Your task to perform on an android device: turn off notifications settings in the gmail app Image 0: 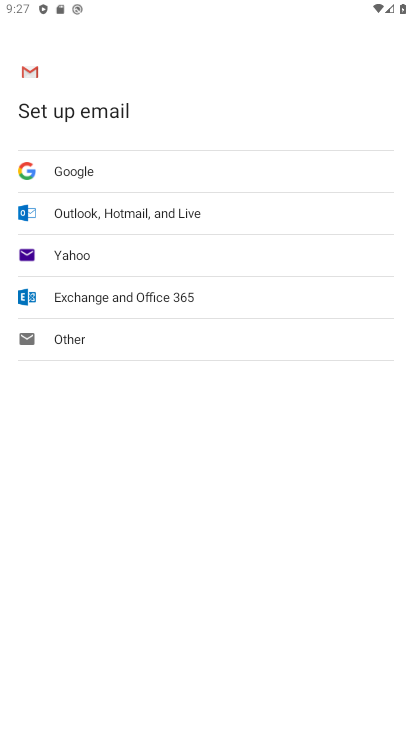
Step 0: press home button
Your task to perform on an android device: turn off notifications settings in the gmail app Image 1: 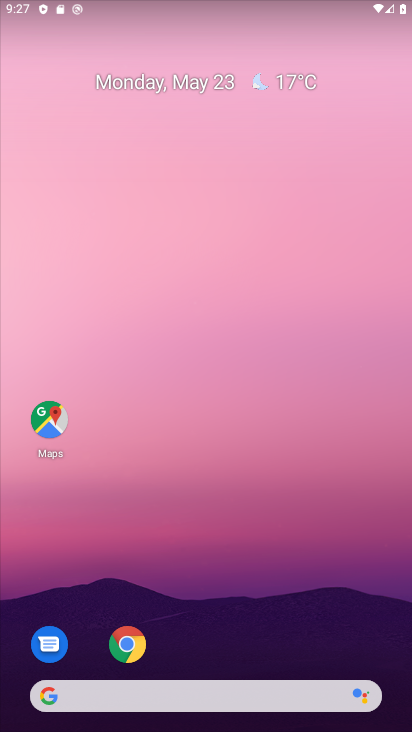
Step 1: drag from (235, 613) to (274, 301)
Your task to perform on an android device: turn off notifications settings in the gmail app Image 2: 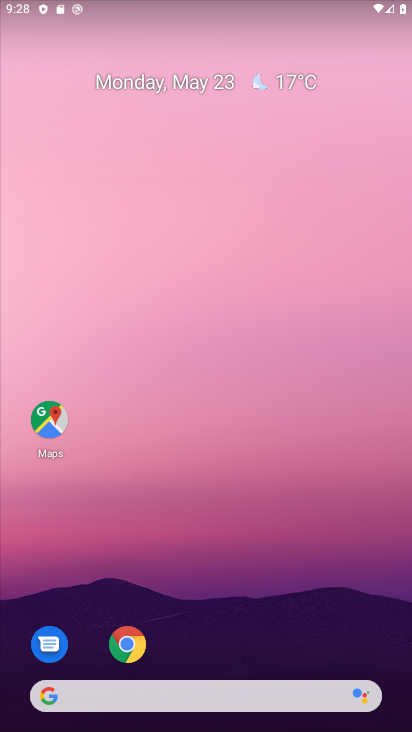
Step 2: drag from (225, 664) to (257, 265)
Your task to perform on an android device: turn off notifications settings in the gmail app Image 3: 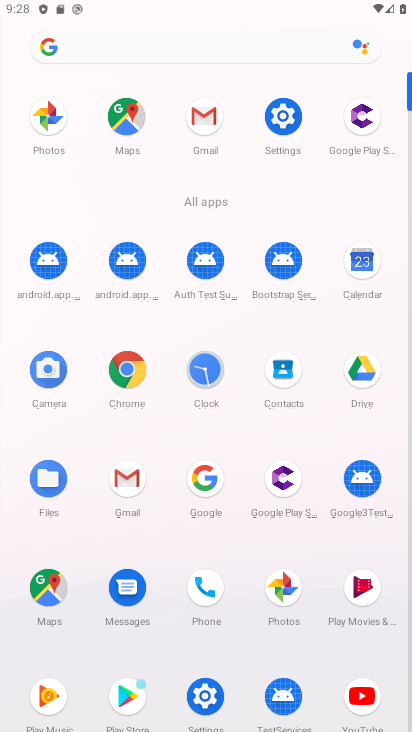
Step 3: click (197, 112)
Your task to perform on an android device: turn off notifications settings in the gmail app Image 4: 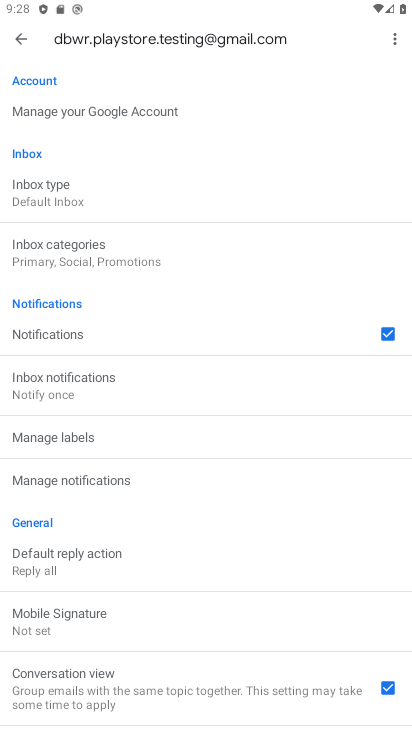
Step 4: click (112, 488)
Your task to perform on an android device: turn off notifications settings in the gmail app Image 5: 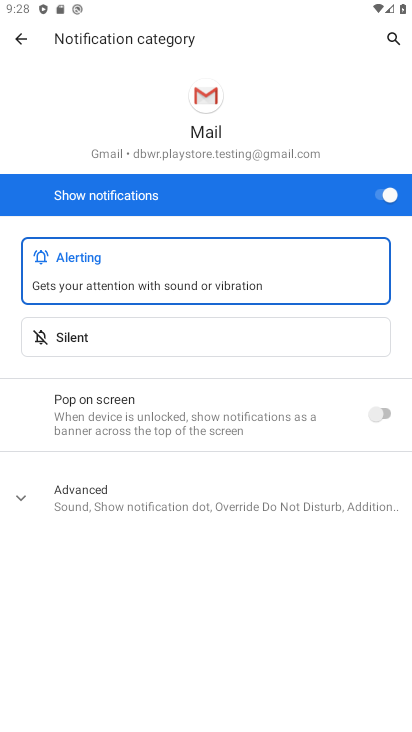
Step 5: click (376, 200)
Your task to perform on an android device: turn off notifications settings in the gmail app Image 6: 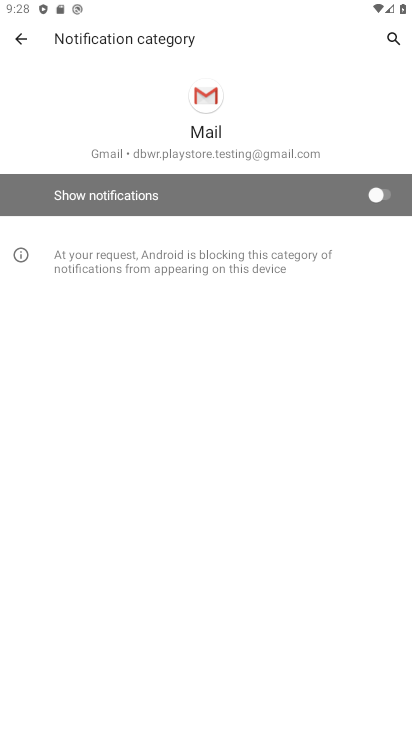
Step 6: task complete